Your task to perform on an android device: Open battery settings Image 0: 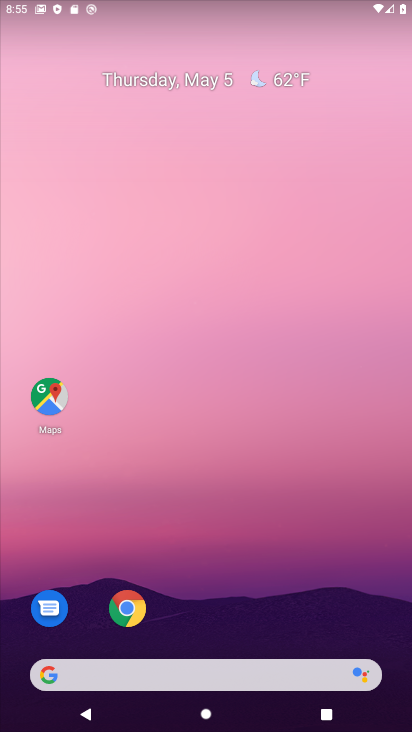
Step 0: drag from (336, 550) to (258, 19)
Your task to perform on an android device: Open battery settings Image 1: 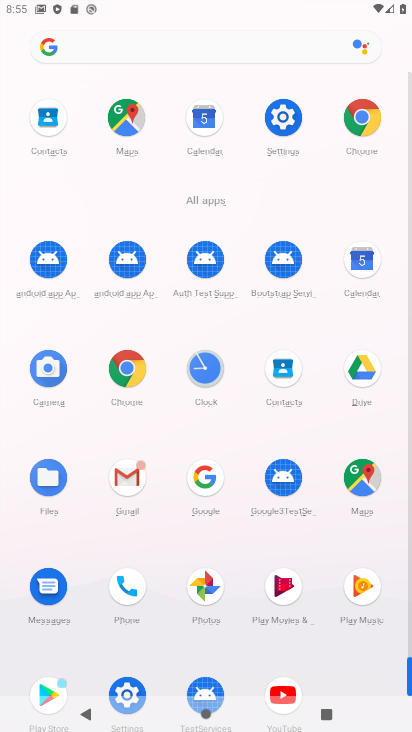
Step 1: drag from (5, 625) to (8, 357)
Your task to perform on an android device: Open battery settings Image 2: 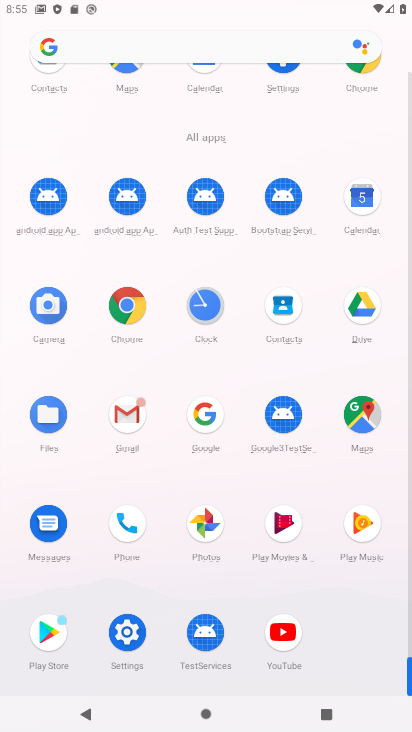
Step 2: click (125, 631)
Your task to perform on an android device: Open battery settings Image 3: 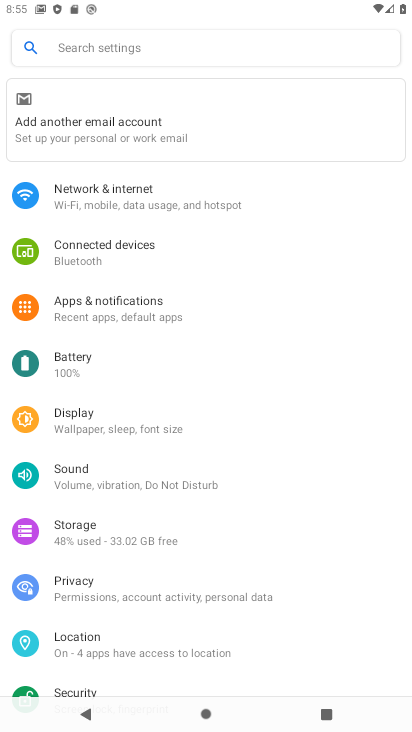
Step 3: click (101, 366)
Your task to perform on an android device: Open battery settings Image 4: 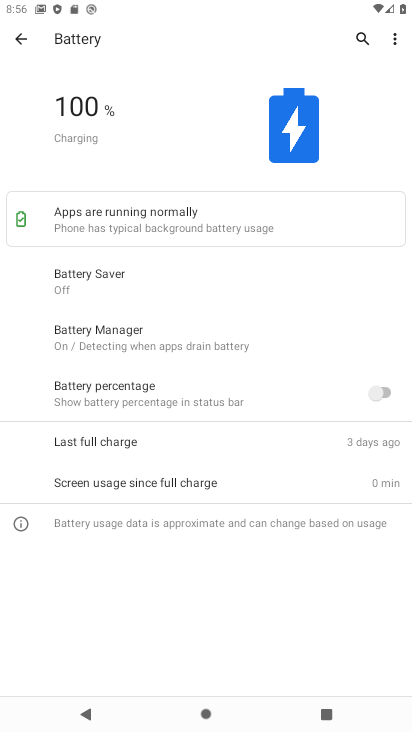
Step 4: task complete